Your task to perform on an android device: manage bookmarks in the chrome app Image 0: 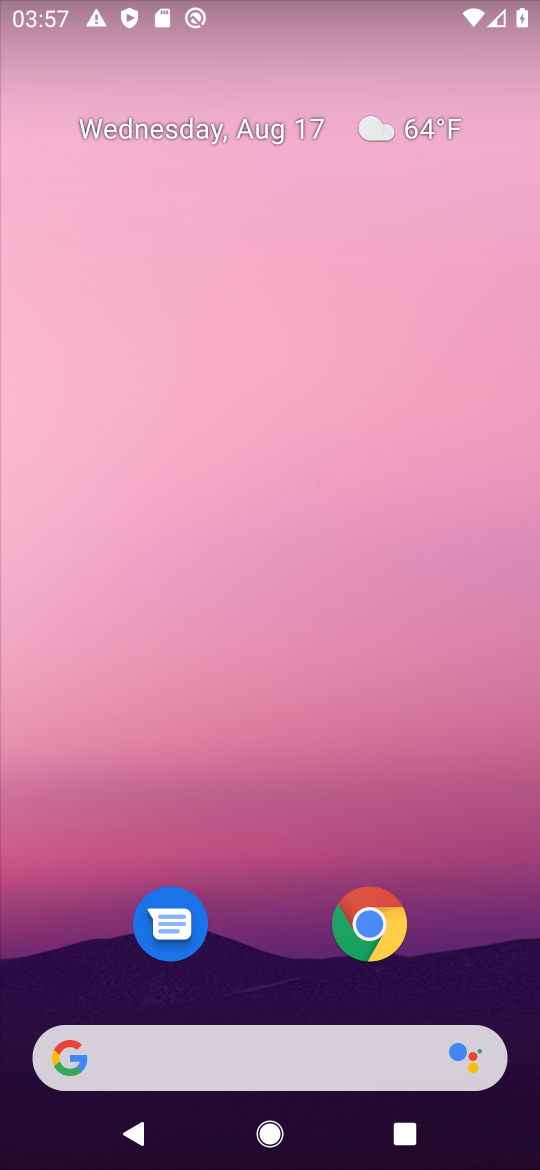
Step 0: drag from (246, 1041) to (490, 218)
Your task to perform on an android device: manage bookmarks in the chrome app Image 1: 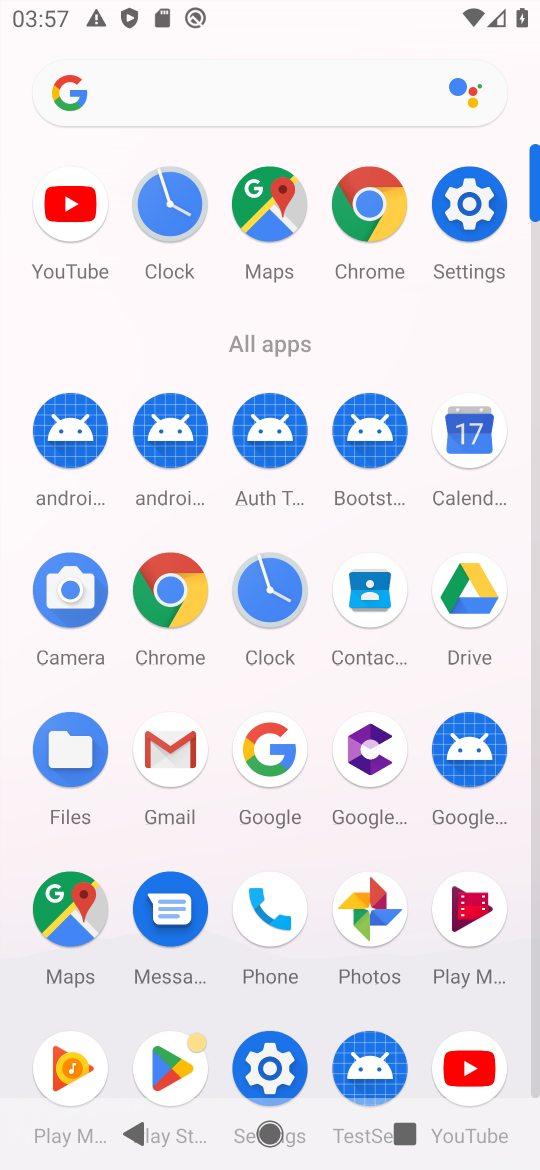
Step 1: click (181, 595)
Your task to perform on an android device: manage bookmarks in the chrome app Image 2: 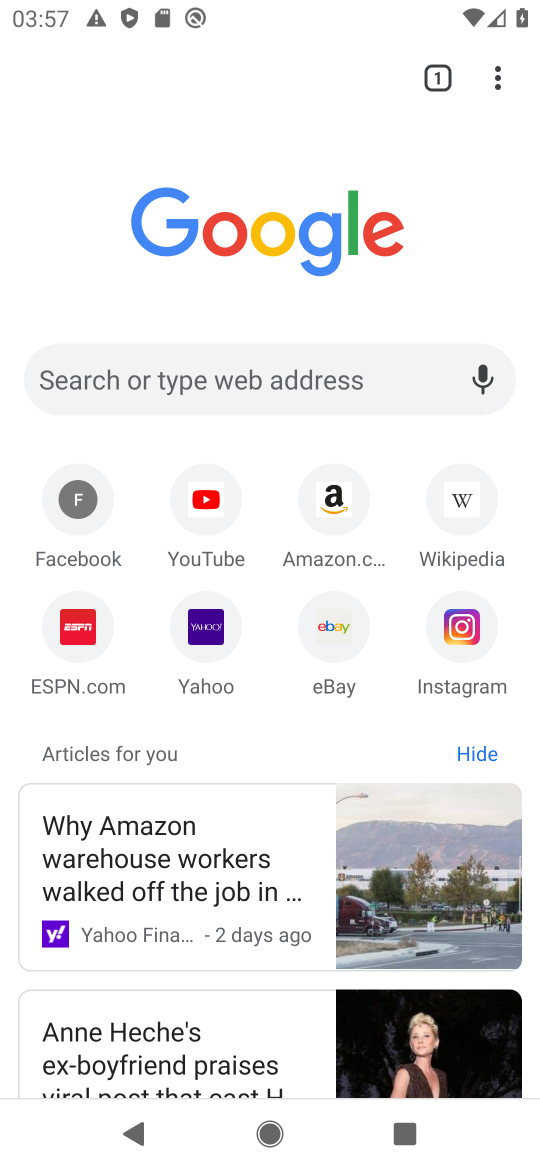
Step 2: click (491, 83)
Your task to perform on an android device: manage bookmarks in the chrome app Image 3: 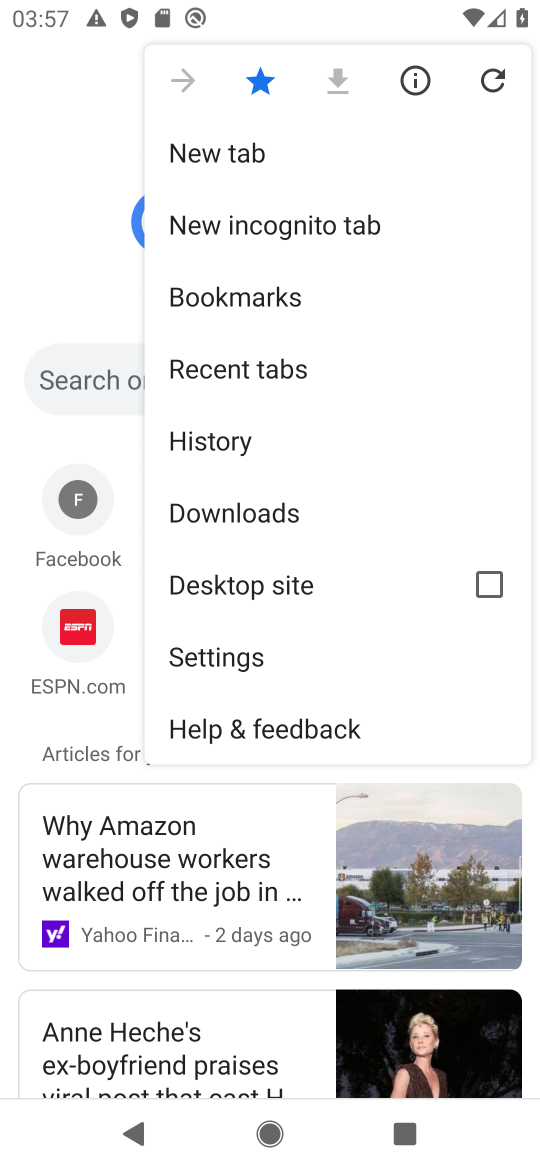
Step 3: click (181, 650)
Your task to perform on an android device: manage bookmarks in the chrome app Image 4: 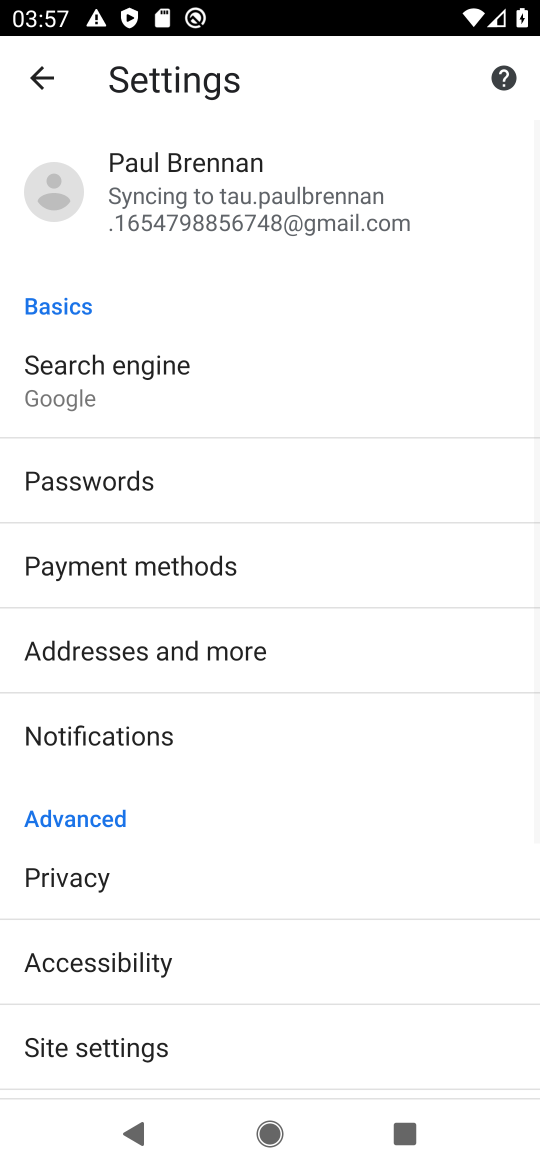
Step 4: drag from (240, 869) to (157, 371)
Your task to perform on an android device: manage bookmarks in the chrome app Image 5: 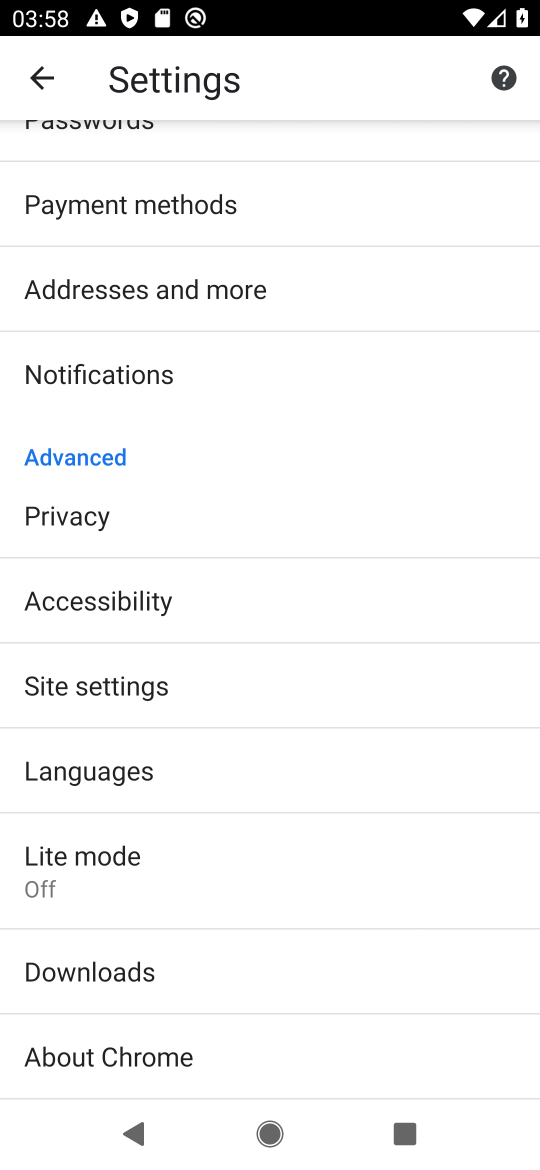
Step 5: drag from (67, 247) to (51, 967)
Your task to perform on an android device: manage bookmarks in the chrome app Image 6: 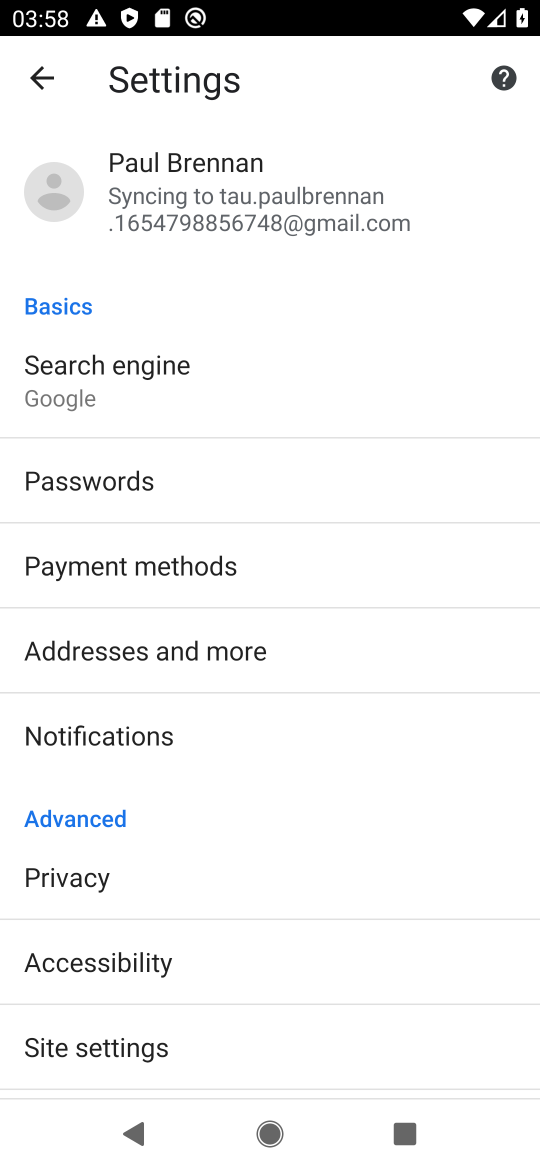
Step 6: click (47, 82)
Your task to perform on an android device: manage bookmarks in the chrome app Image 7: 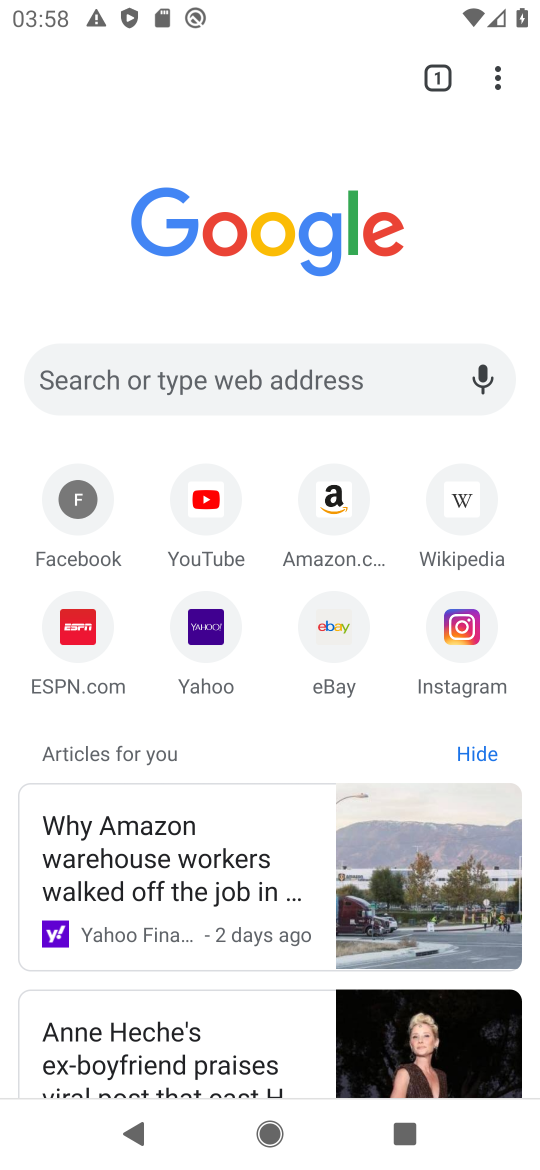
Step 7: click (492, 69)
Your task to perform on an android device: manage bookmarks in the chrome app Image 8: 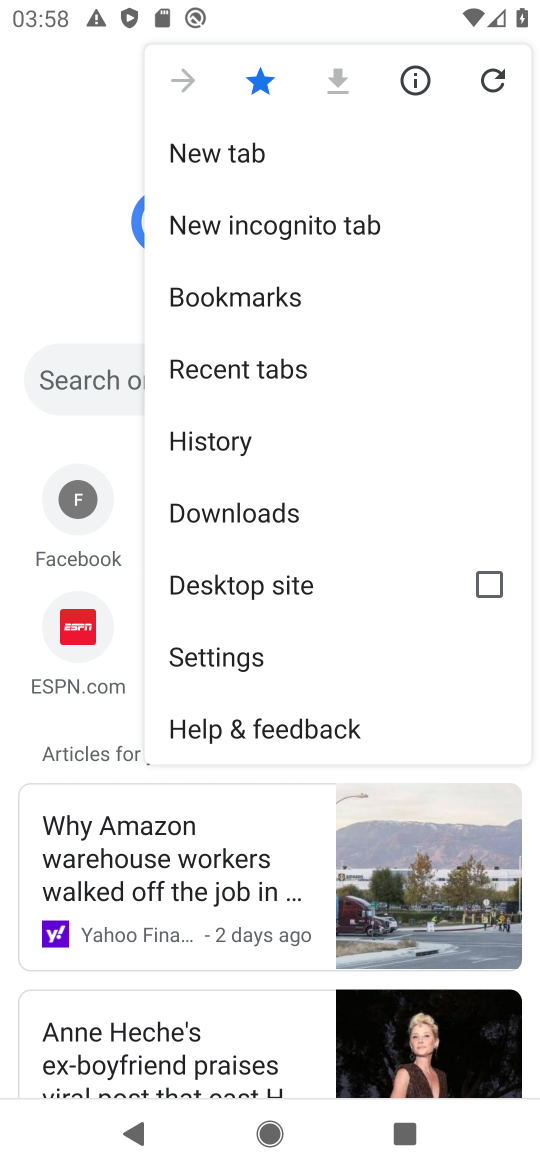
Step 8: click (242, 650)
Your task to perform on an android device: manage bookmarks in the chrome app Image 9: 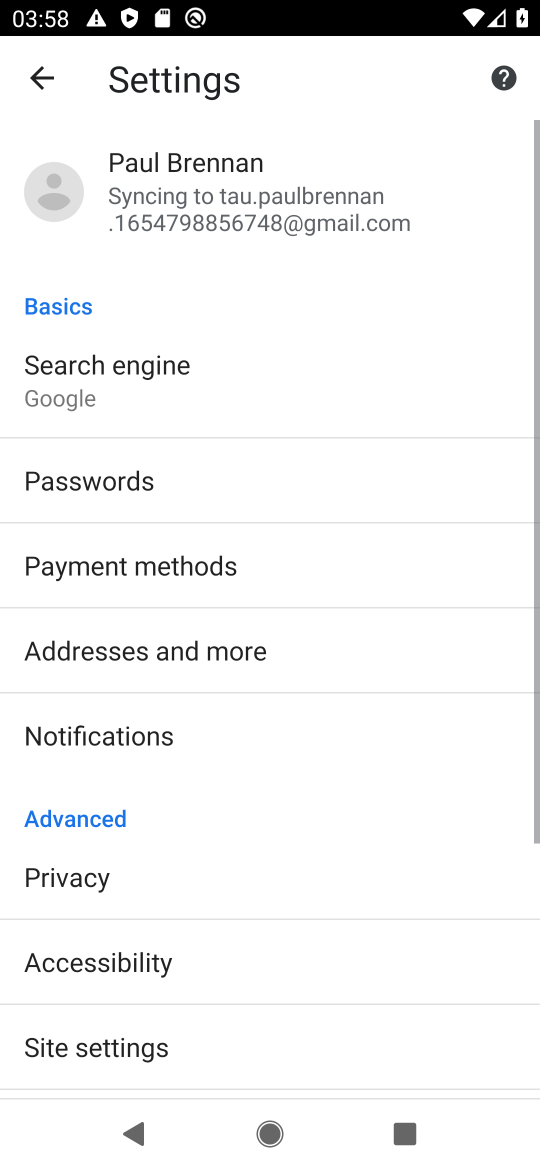
Step 9: task complete